Your task to perform on an android device: snooze an email in the gmail app Image 0: 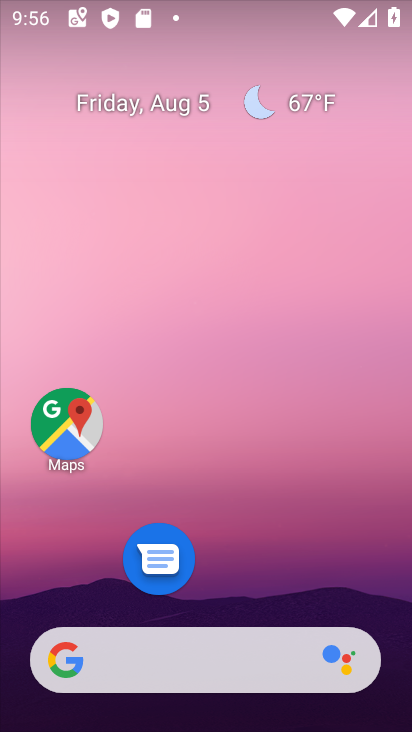
Step 0: drag from (310, 553) to (284, 149)
Your task to perform on an android device: snooze an email in the gmail app Image 1: 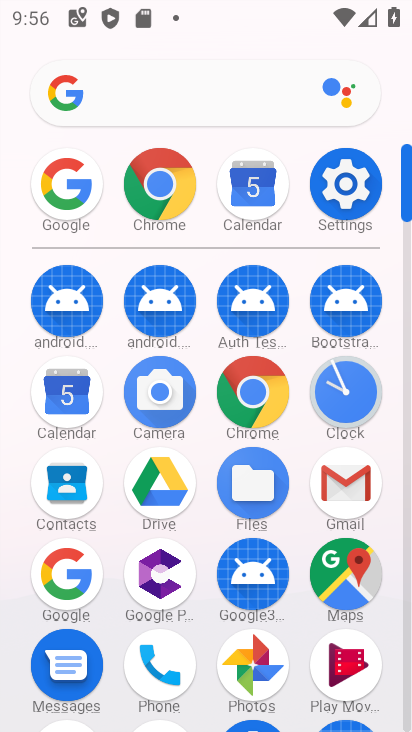
Step 1: click (357, 497)
Your task to perform on an android device: snooze an email in the gmail app Image 2: 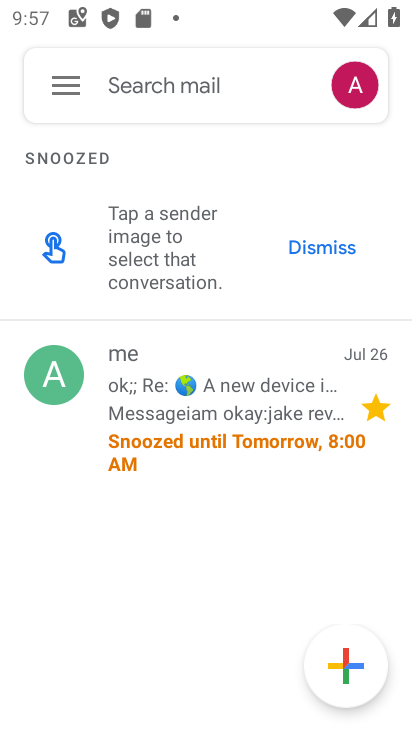
Step 2: click (72, 89)
Your task to perform on an android device: snooze an email in the gmail app Image 3: 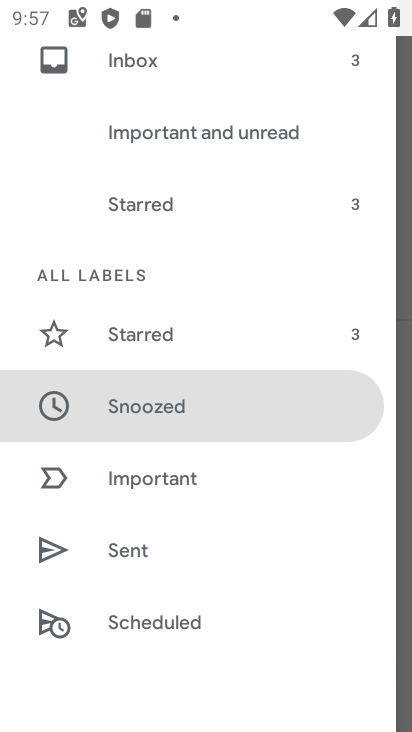
Step 3: drag from (205, 565) to (173, 249)
Your task to perform on an android device: snooze an email in the gmail app Image 4: 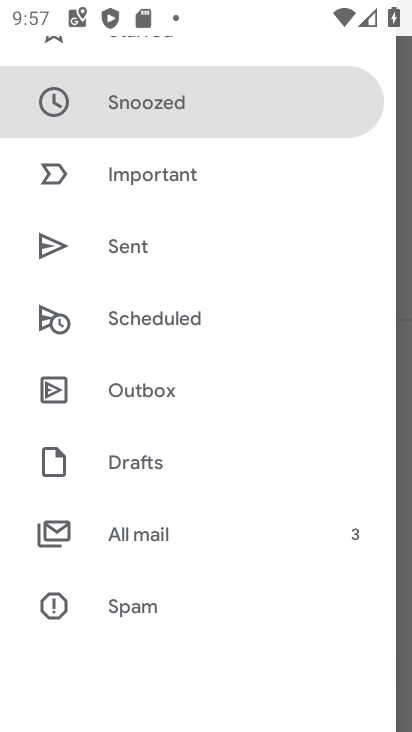
Step 4: click (234, 528)
Your task to perform on an android device: snooze an email in the gmail app Image 5: 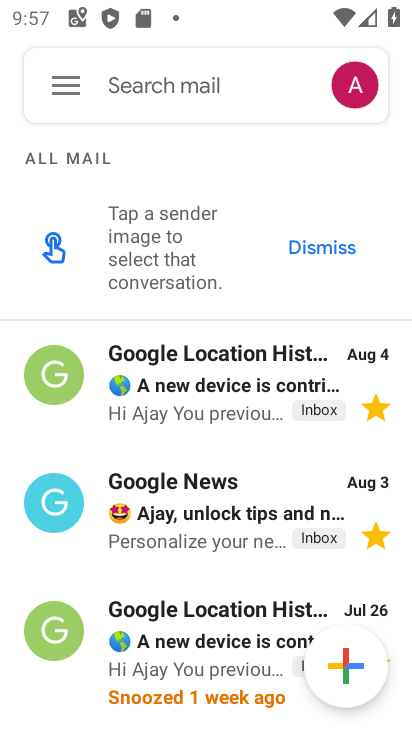
Step 5: click (178, 400)
Your task to perform on an android device: snooze an email in the gmail app Image 6: 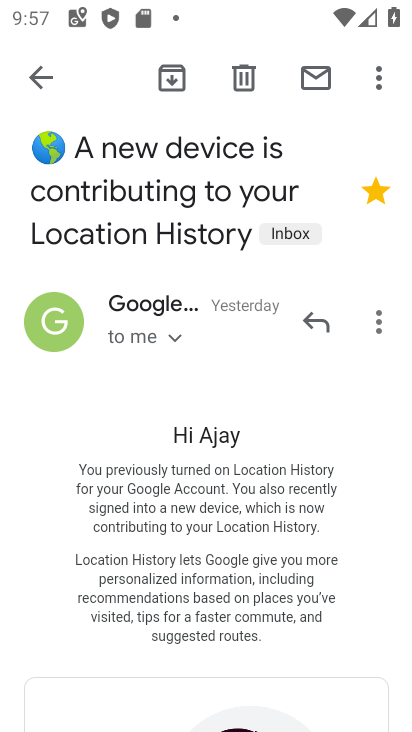
Step 6: click (379, 81)
Your task to perform on an android device: snooze an email in the gmail app Image 7: 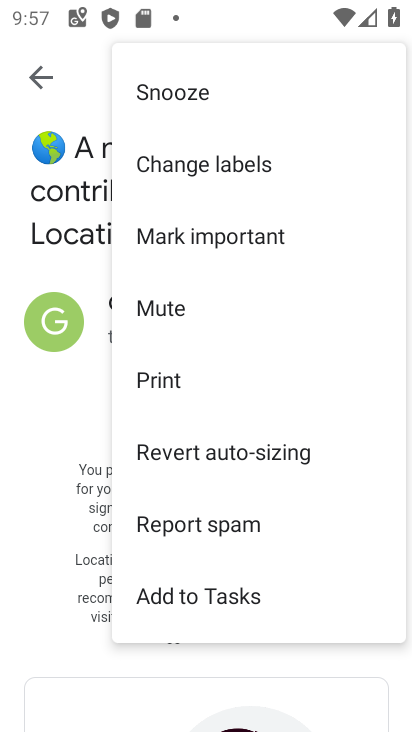
Step 7: click (177, 95)
Your task to perform on an android device: snooze an email in the gmail app Image 8: 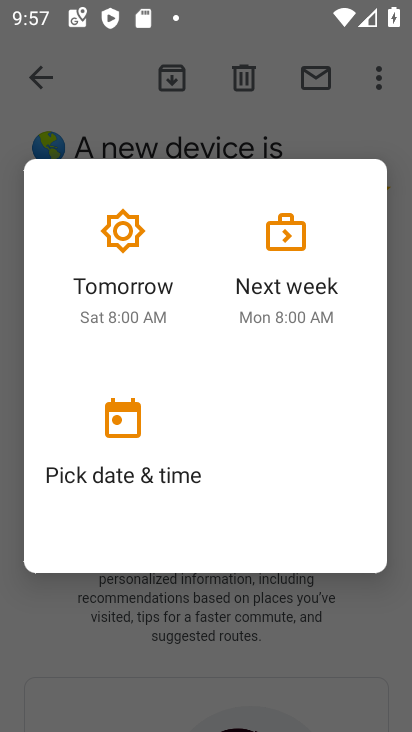
Step 8: click (132, 242)
Your task to perform on an android device: snooze an email in the gmail app Image 9: 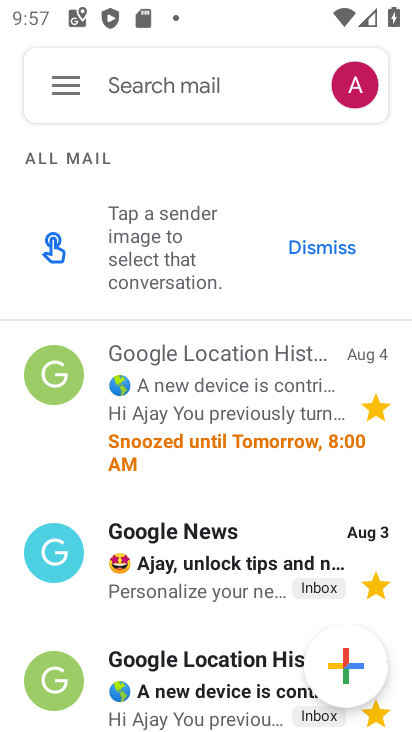
Step 9: task complete